Your task to perform on an android device: open app "Pinterest" (install if not already installed) Image 0: 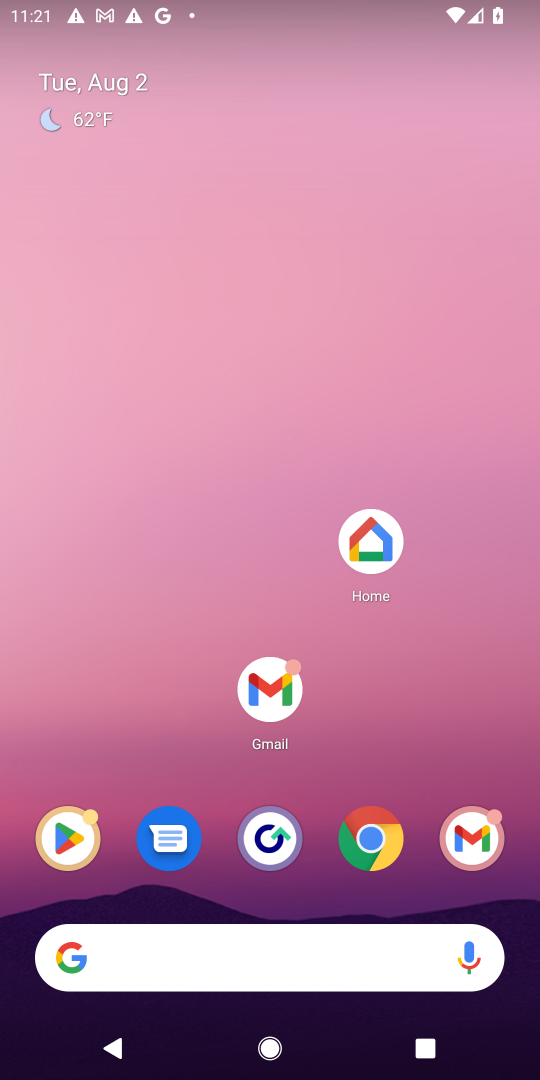
Step 0: press home button
Your task to perform on an android device: open app "Pinterest" (install if not already installed) Image 1: 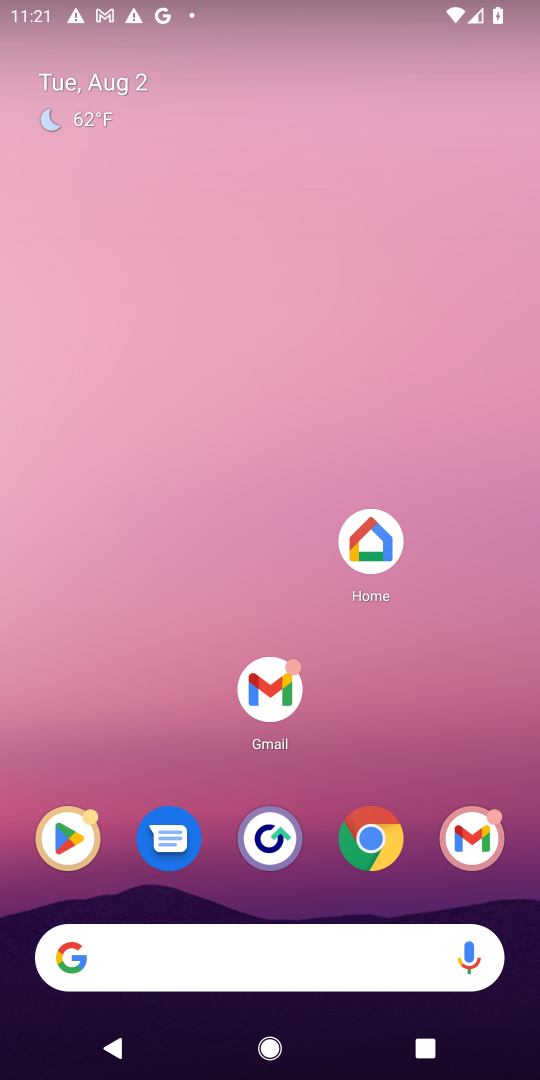
Step 1: drag from (416, 732) to (420, 166)
Your task to perform on an android device: open app "Pinterest" (install if not already installed) Image 2: 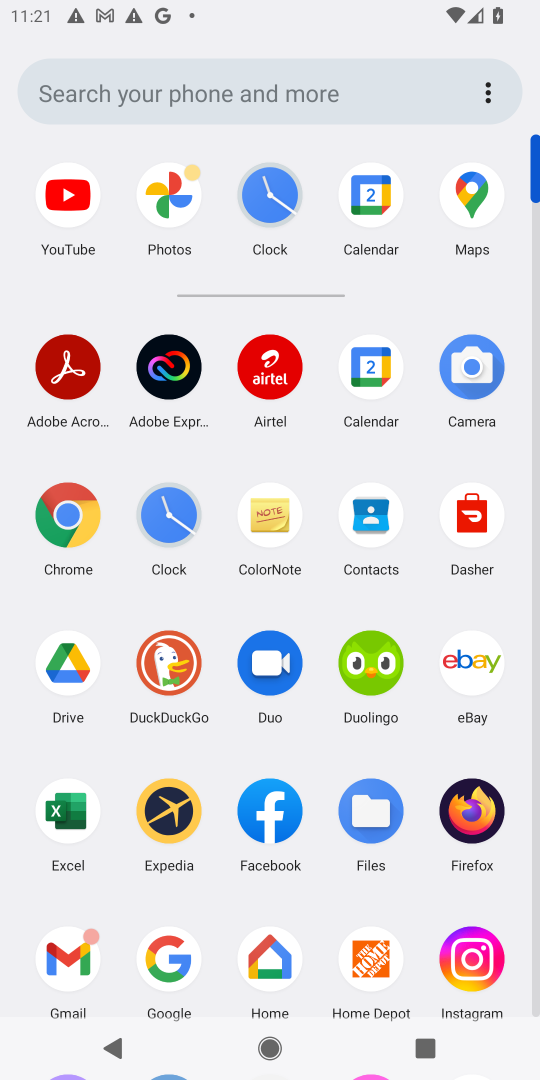
Step 2: drag from (410, 577) to (414, 378)
Your task to perform on an android device: open app "Pinterest" (install if not already installed) Image 3: 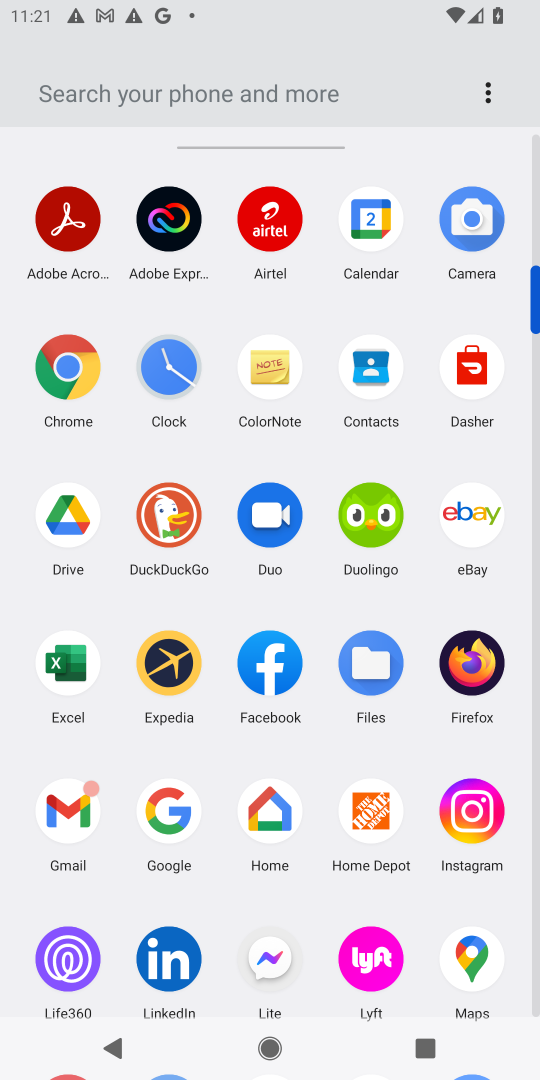
Step 3: drag from (406, 751) to (414, 503)
Your task to perform on an android device: open app "Pinterest" (install if not already installed) Image 4: 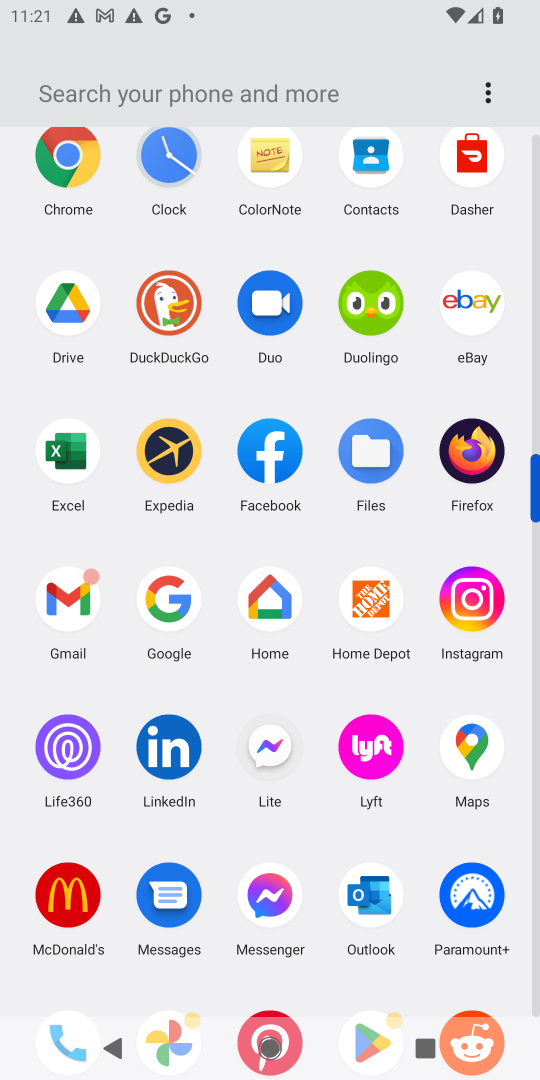
Step 4: drag from (410, 826) to (407, 572)
Your task to perform on an android device: open app "Pinterest" (install if not already installed) Image 5: 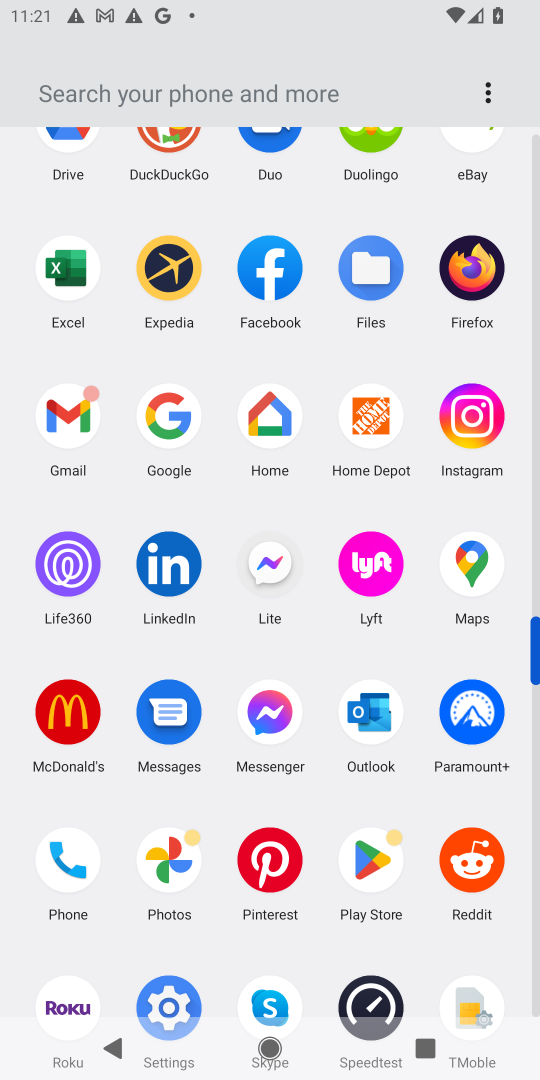
Step 5: click (373, 866)
Your task to perform on an android device: open app "Pinterest" (install if not already installed) Image 6: 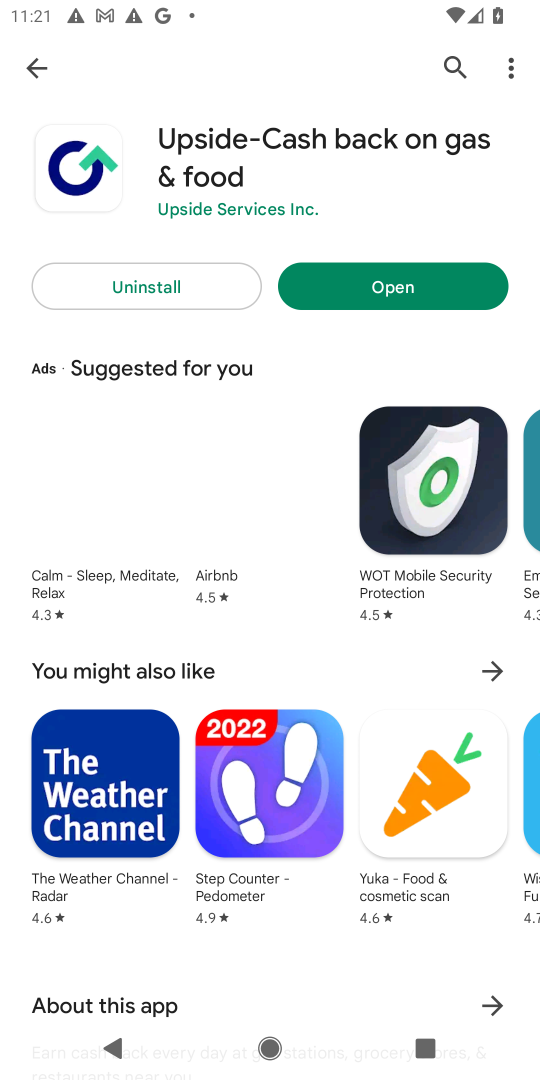
Step 6: click (453, 59)
Your task to perform on an android device: open app "Pinterest" (install if not already installed) Image 7: 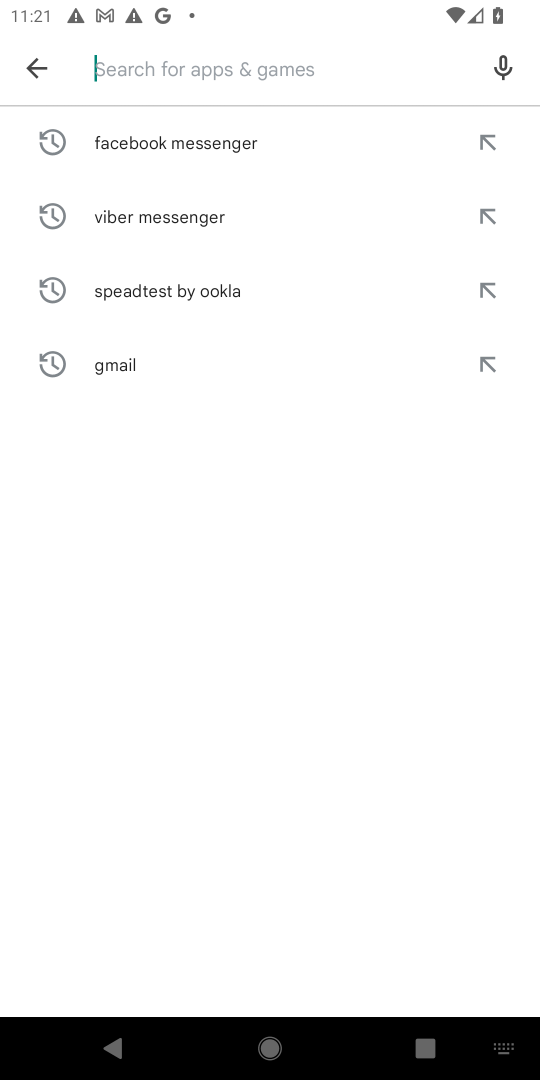
Step 7: type "pinterest"
Your task to perform on an android device: open app "Pinterest" (install if not already installed) Image 8: 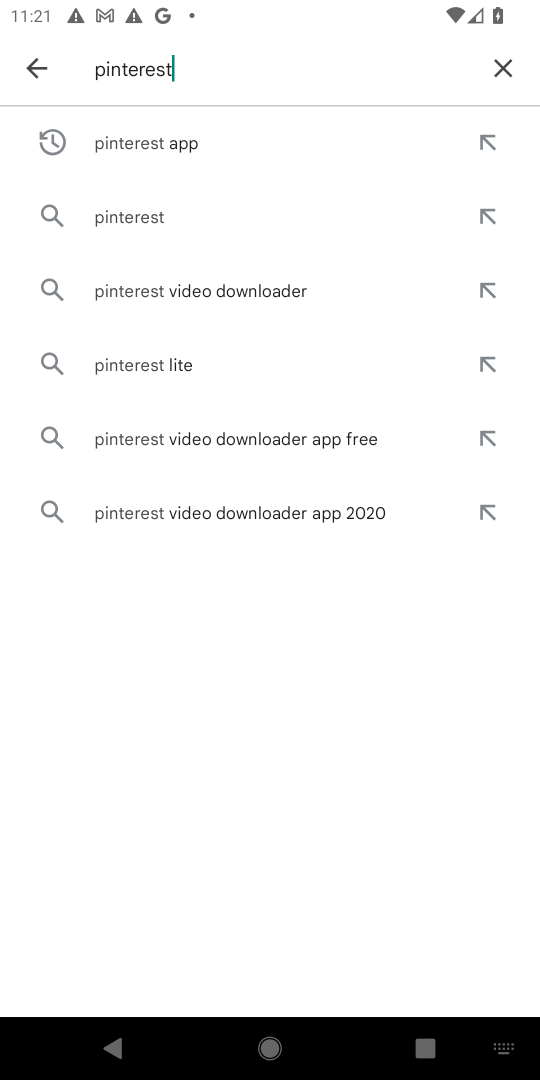
Step 8: click (226, 220)
Your task to perform on an android device: open app "Pinterest" (install if not already installed) Image 9: 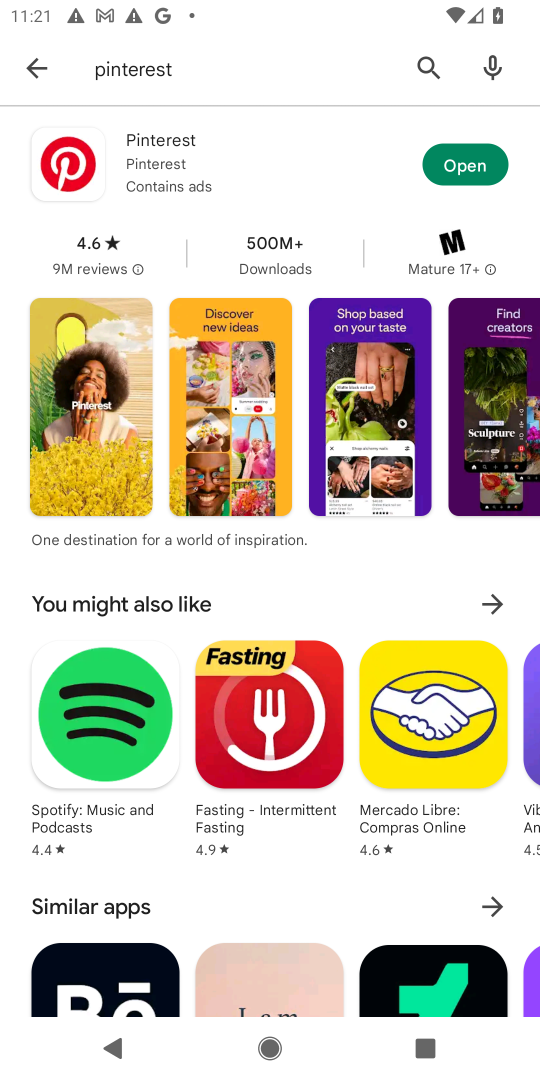
Step 9: click (472, 170)
Your task to perform on an android device: open app "Pinterest" (install if not already installed) Image 10: 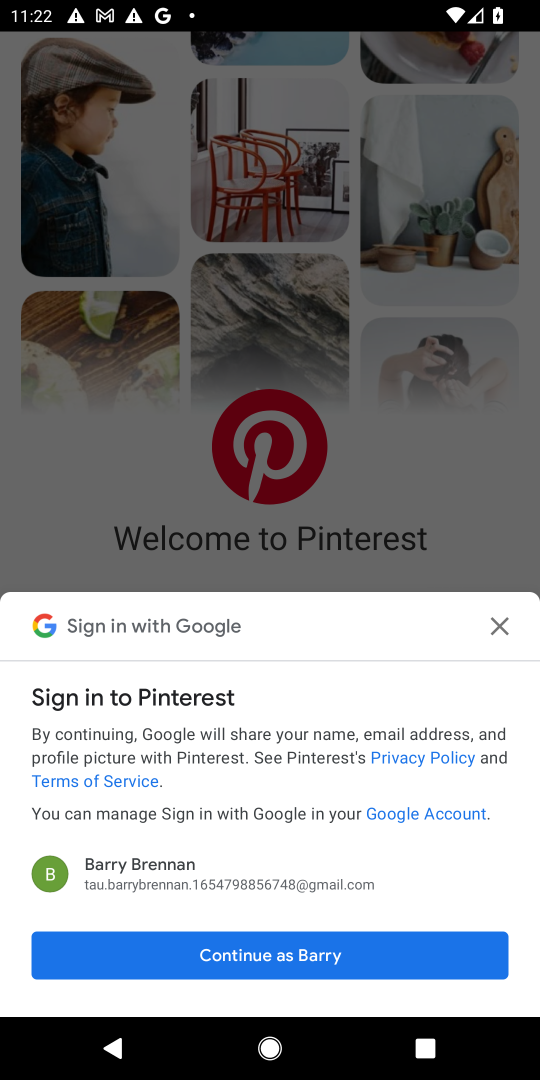
Step 10: task complete